Your task to perform on an android device: Open network settings Image 0: 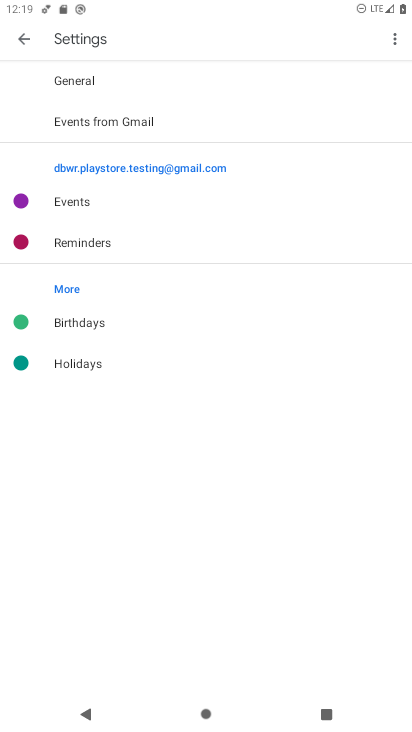
Step 0: press home button
Your task to perform on an android device: Open network settings Image 1: 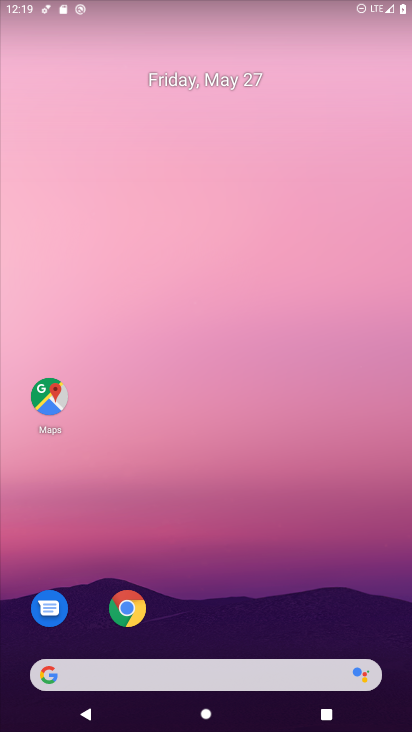
Step 1: drag from (134, 671) to (340, 67)
Your task to perform on an android device: Open network settings Image 2: 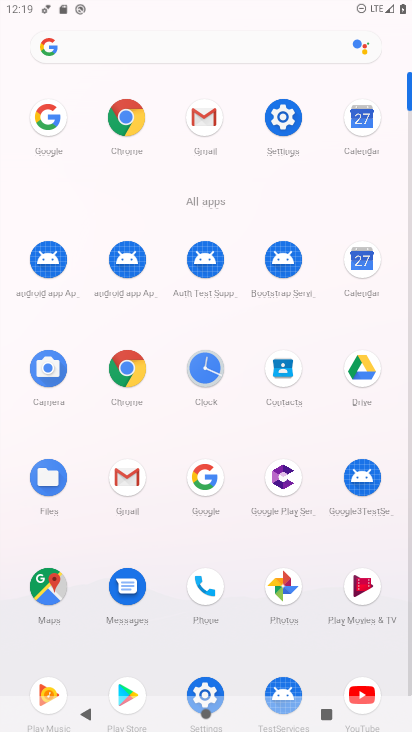
Step 2: click (293, 117)
Your task to perform on an android device: Open network settings Image 3: 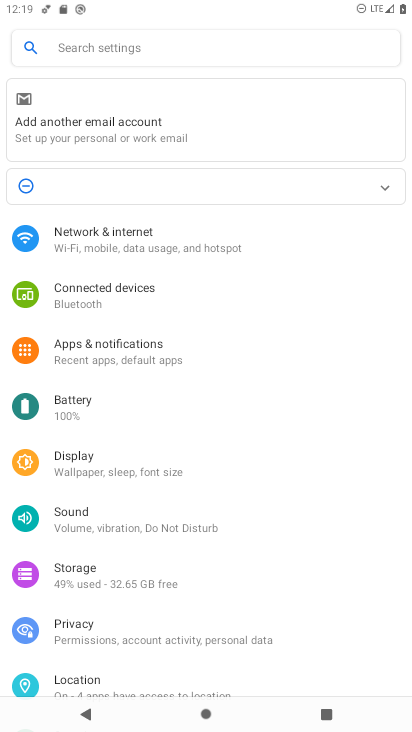
Step 3: click (140, 235)
Your task to perform on an android device: Open network settings Image 4: 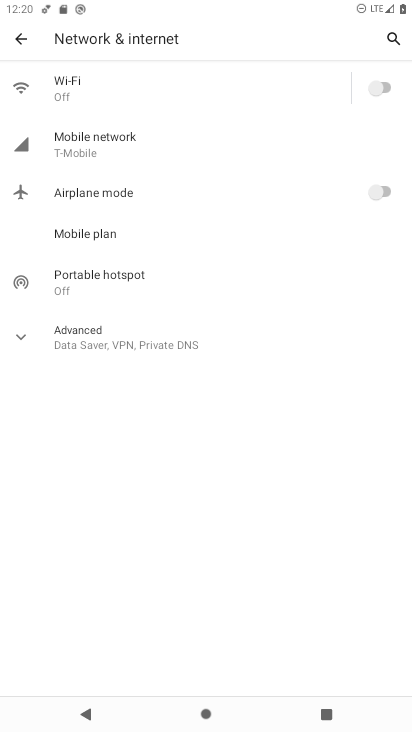
Step 4: task complete